Your task to perform on an android device: Open Yahoo.com Image 0: 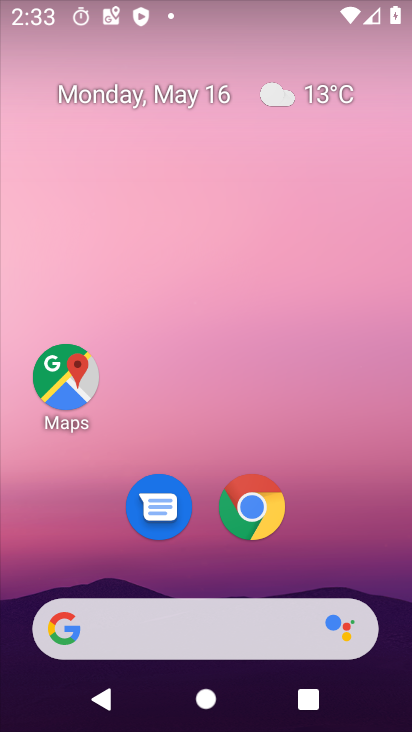
Step 0: drag from (363, 561) to (368, 193)
Your task to perform on an android device: Open Yahoo.com Image 1: 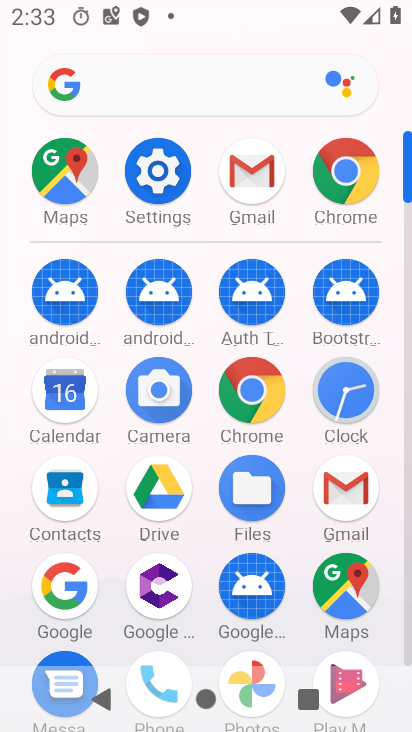
Step 1: click (276, 398)
Your task to perform on an android device: Open Yahoo.com Image 2: 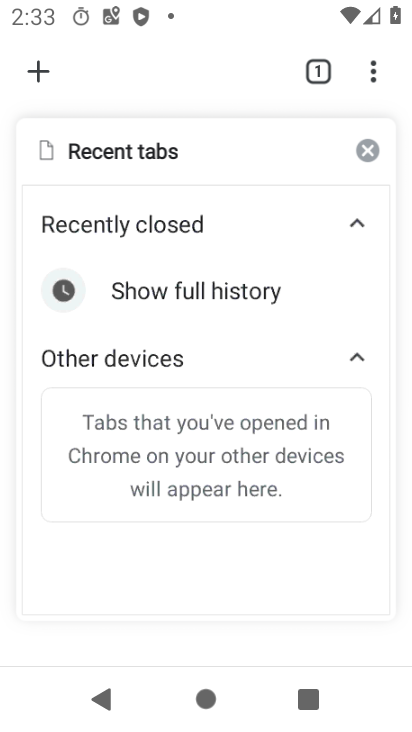
Step 2: press back button
Your task to perform on an android device: Open Yahoo.com Image 3: 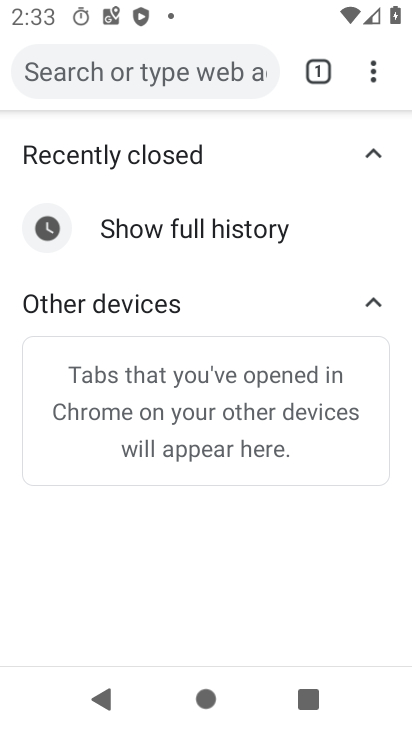
Step 3: click (176, 80)
Your task to perform on an android device: Open Yahoo.com Image 4: 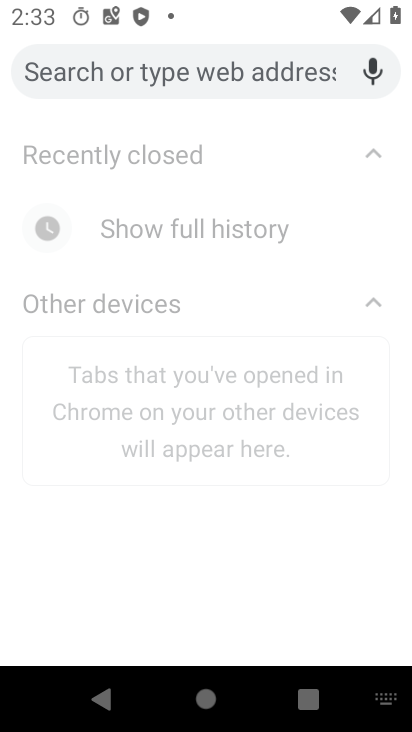
Step 4: type "yahoo"
Your task to perform on an android device: Open Yahoo.com Image 5: 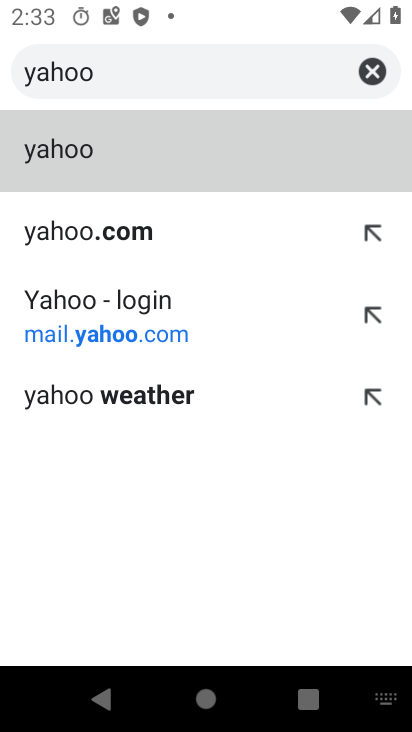
Step 5: click (254, 229)
Your task to perform on an android device: Open Yahoo.com Image 6: 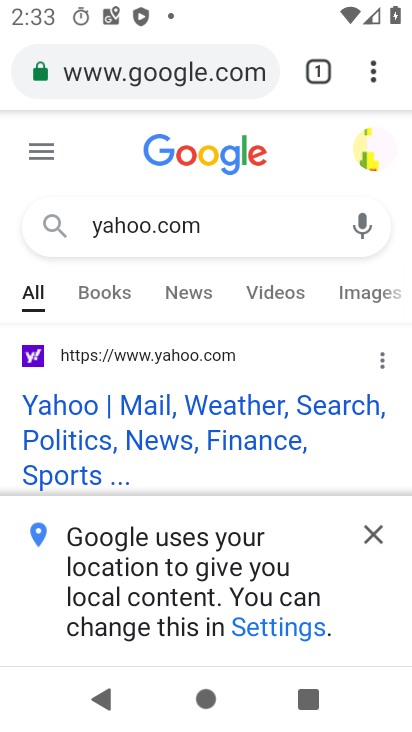
Step 6: task complete